Your task to perform on an android device: Open calendar and show me the third week of next month Image 0: 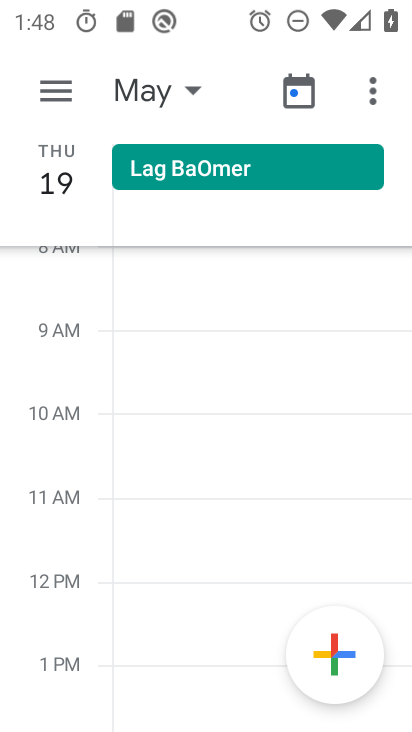
Step 0: click (175, 97)
Your task to perform on an android device: Open calendar and show me the third week of next month Image 1: 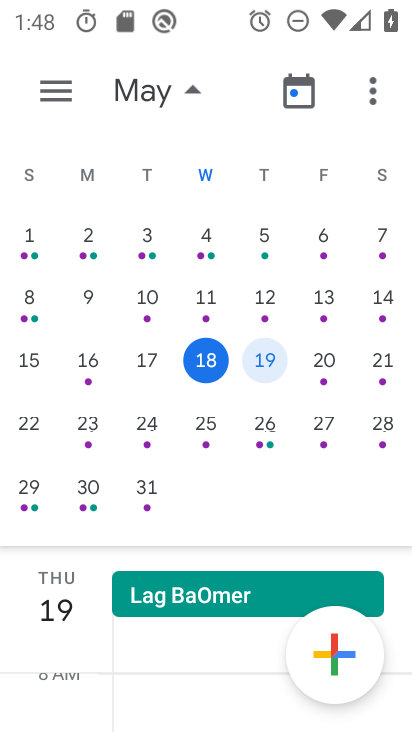
Step 1: drag from (400, 333) to (16, 242)
Your task to perform on an android device: Open calendar and show me the third week of next month Image 2: 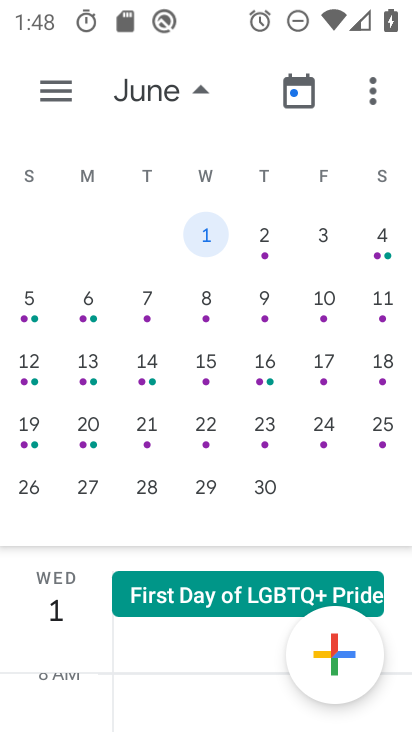
Step 2: click (36, 111)
Your task to perform on an android device: Open calendar and show me the third week of next month Image 3: 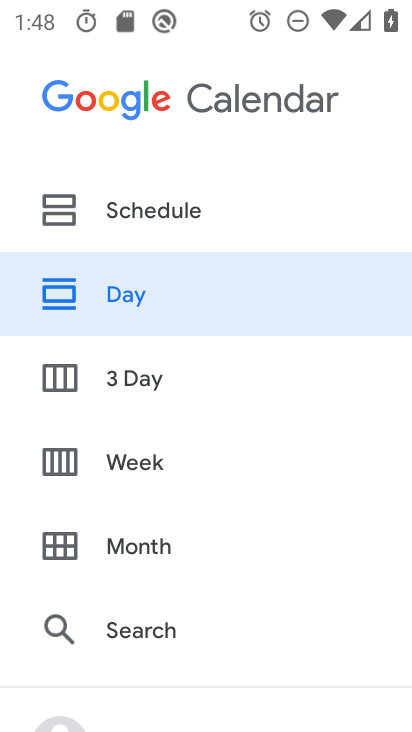
Step 3: click (163, 453)
Your task to perform on an android device: Open calendar and show me the third week of next month Image 4: 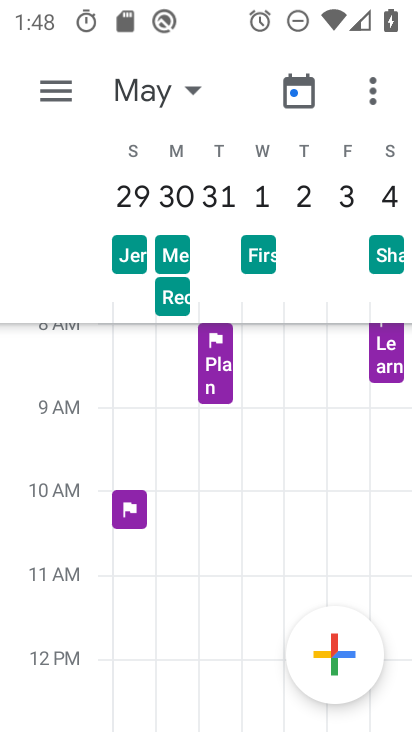
Step 4: task complete